Your task to perform on an android device: clear all cookies in the chrome app Image 0: 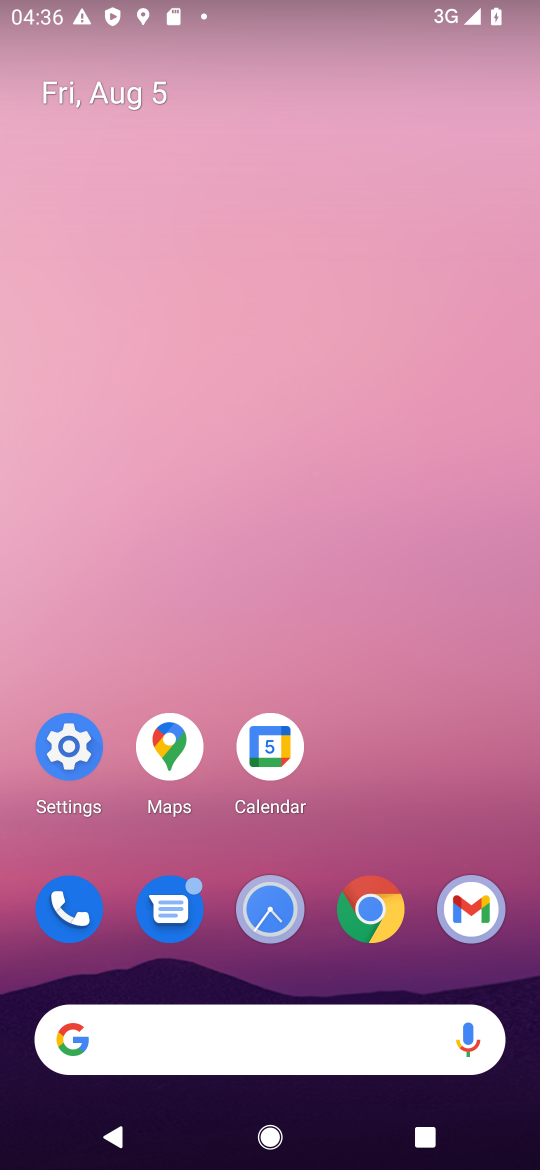
Step 0: click (362, 914)
Your task to perform on an android device: clear all cookies in the chrome app Image 1: 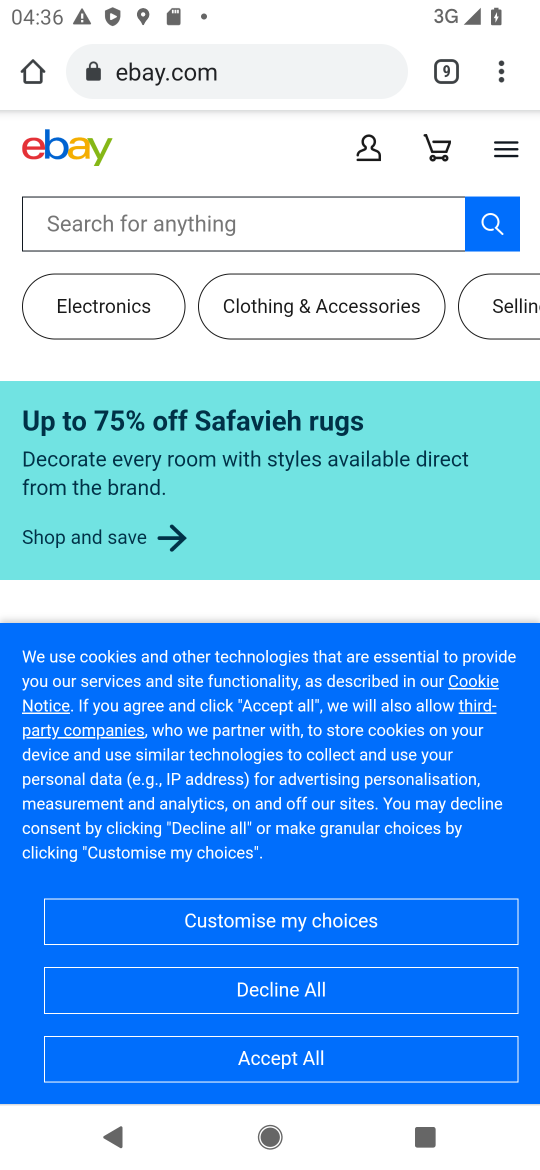
Step 1: click (505, 69)
Your task to perform on an android device: clear all cookies in the chrome app Image 2: 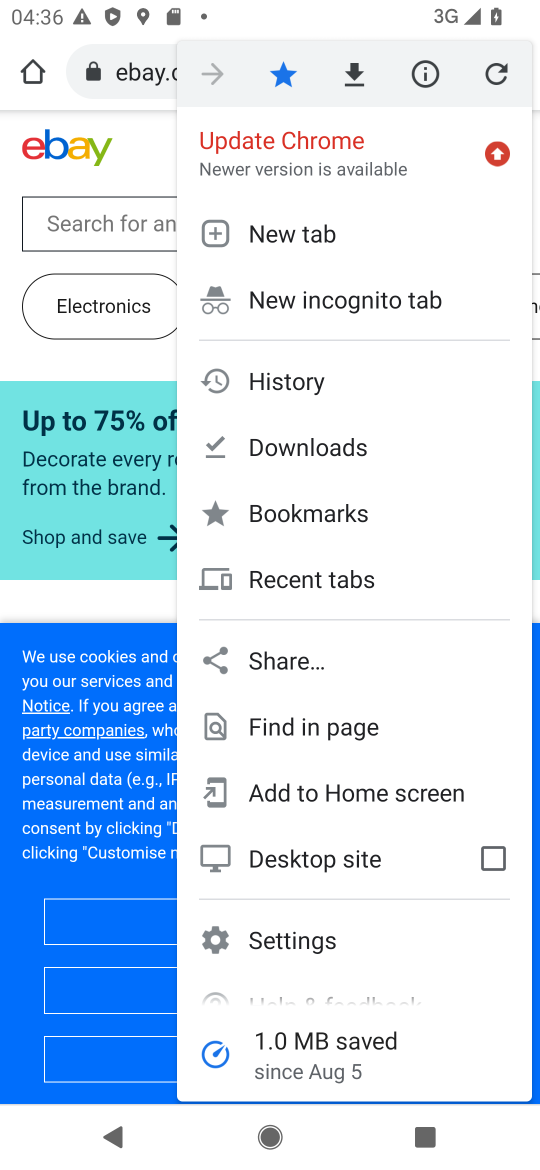
Step 2: click (296, 943)
Your task to perform on an android device: clear all cookies in the chrome app Image 3: 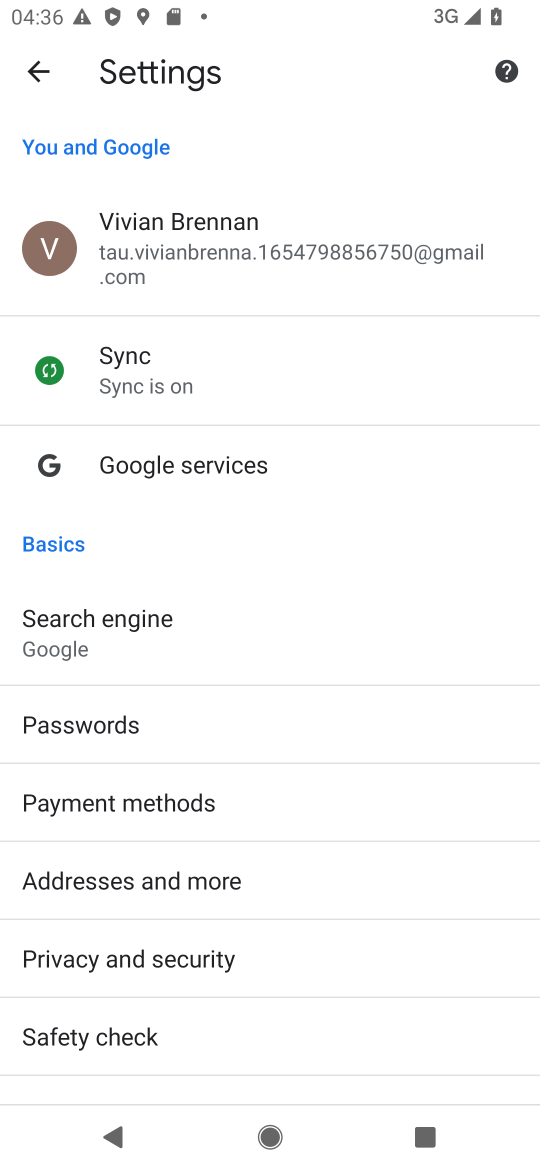
Step 3: drag from (299, 874) to (245, 263)
Your task to perform on an android device: clear all cookies in the chrome app Image 4: 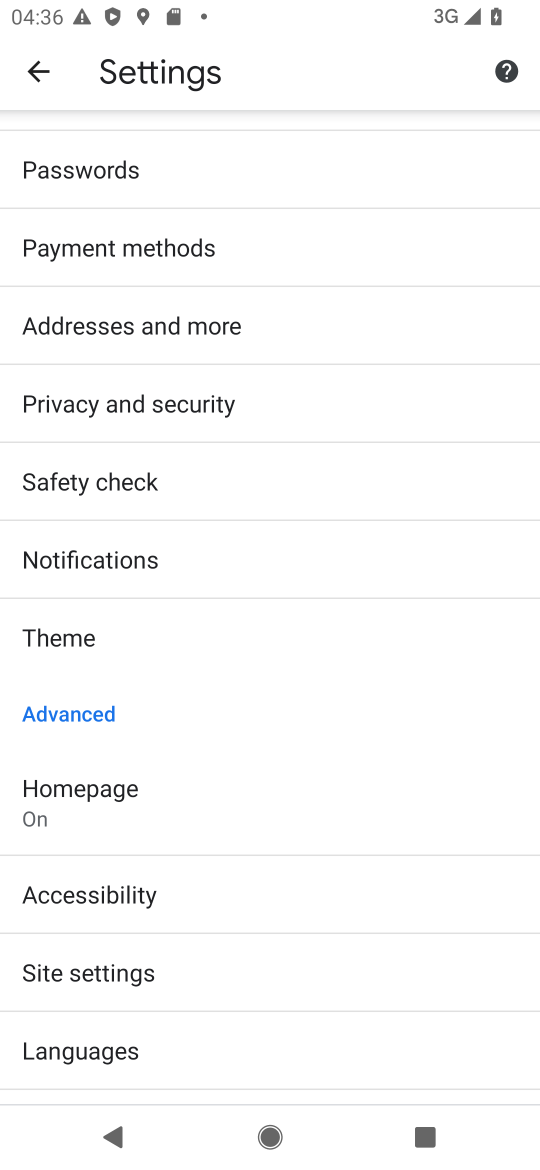
Step 4: click (108, 974)
Your task to perform on an android device: clear all cookies in the chrome app Image 5: 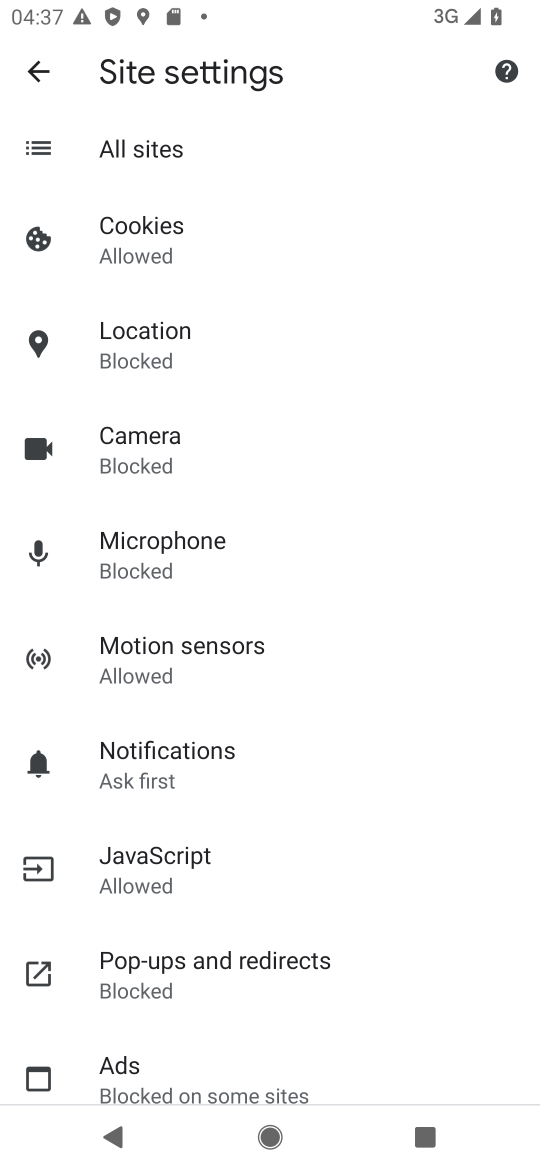
Step 5: click (134, 232)
Your task to perform on an android device: clear all cookies in the chrome app Image 6: 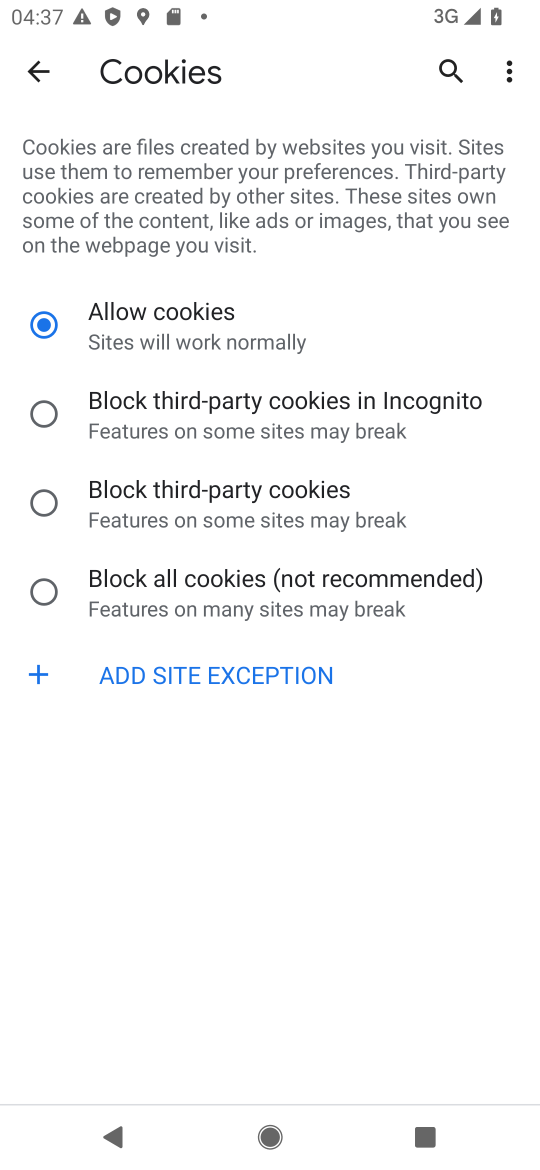
Step 6: task complete